Your task to perform on an android device: turn off improve location accuracy Image 0: 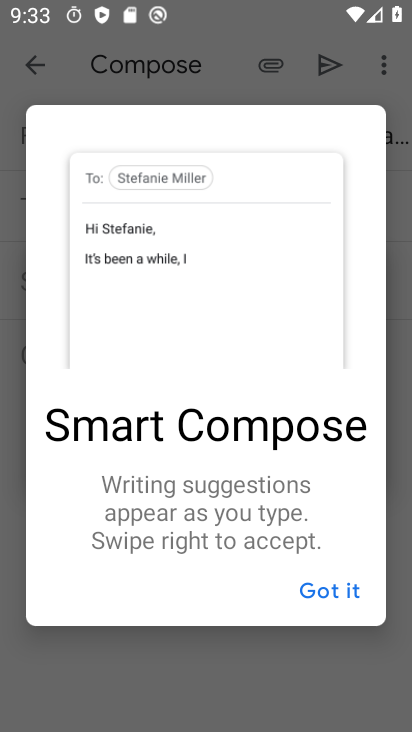
Step 0: press home button
Your task to perform on an android device: turn off improve location accuracy Image 1: 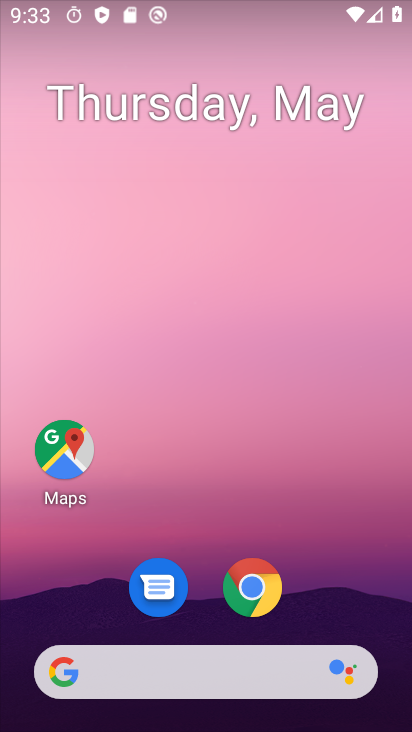
Step 1: drag from (335, 628) to (341, 13)
Your task to perform on an android device: turn off improve location accuracy Image 2: 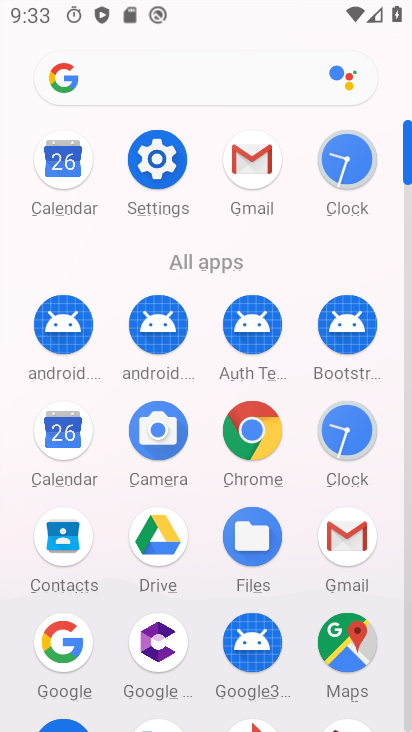
Step 2: click (154, 161)
Your task to perform on an android device: turn off improve location accuracy Image 3: 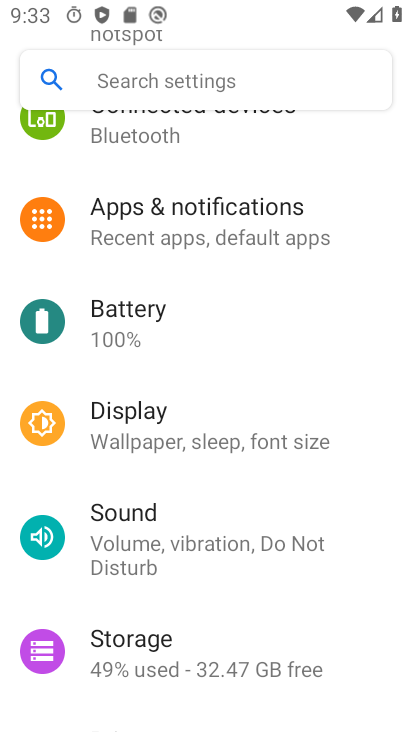
Step 3: drag from (348, 593) to (324, 140)
Your task to perform on an android device: turn off improve location accuracy Image 4: 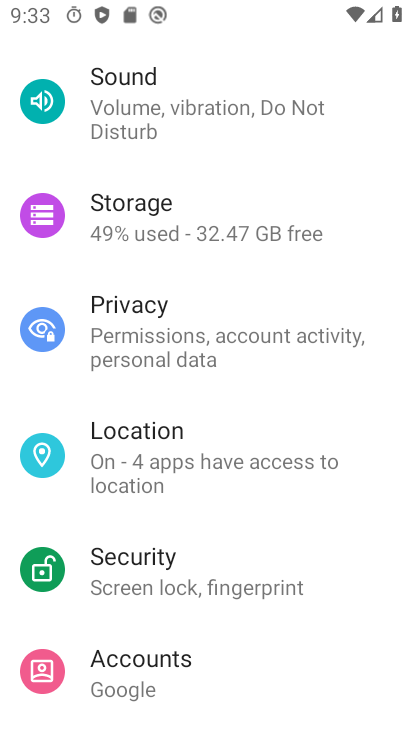
Step 4: click (145, 457)
Your task to perform on an android device: turn off improve location accuracy Image 5: 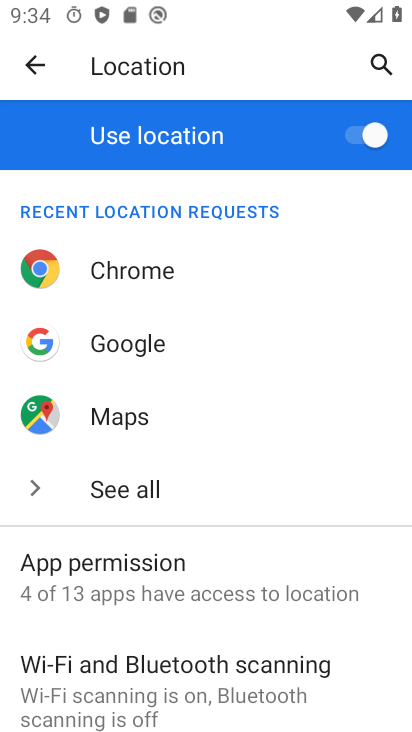
Step 5: drag from (251, 528) to (218, 118)
Your task to perform on an android device: turn off improve location accuracy Image 6: 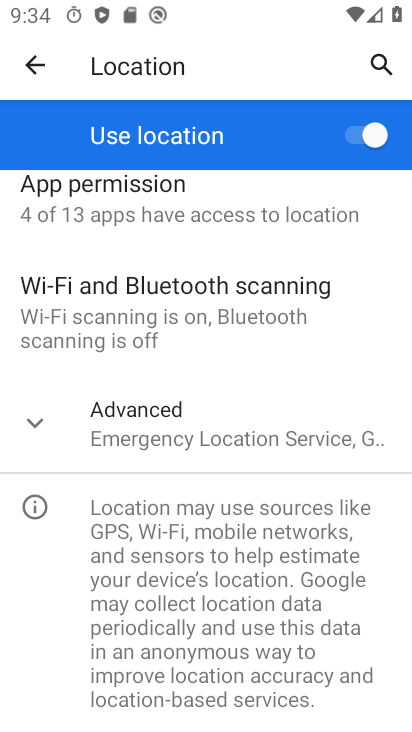
Step 6: click (31, 430)
Your task to perform on an android device: turn off improve location accuracy Image 7: 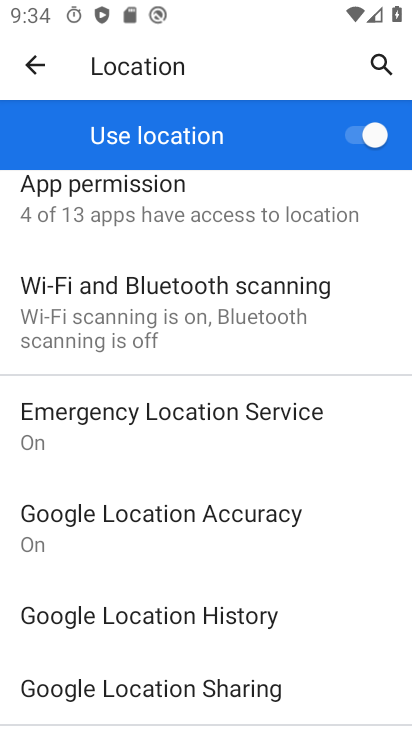
Step 7: click (104, 518)
Your task to perform on an android device: turn off improve location accuracy Image 8: 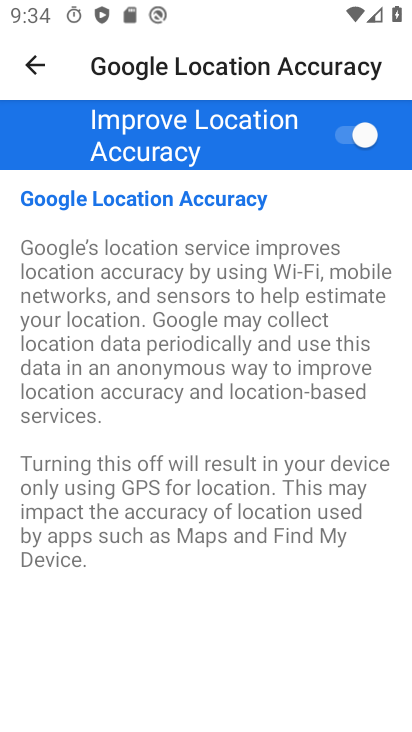
Step 8: click (362, 133)
Your task to perform on an android device: turn off improve location accuracy Image 9: 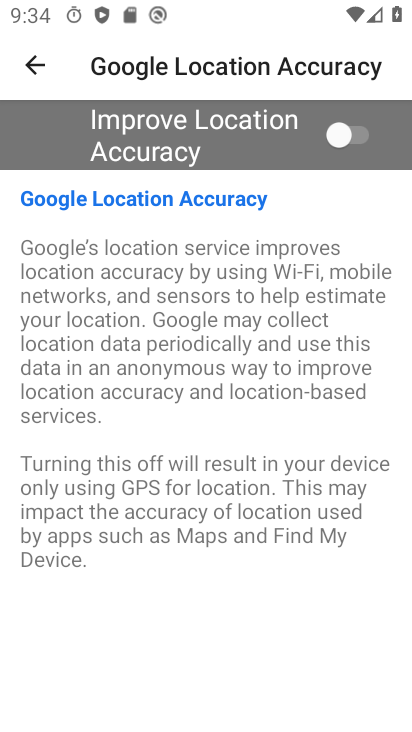
Step 9: task complete